Your task to perform on an android device: change keyboard looks Image 0: 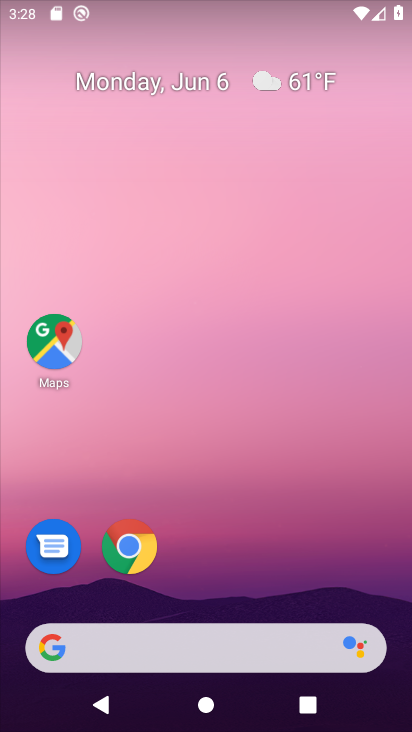
Step 0: drag from (250, 611) to (243, 98)
Your task to perform on an android device: change keyboard looks Image 1: 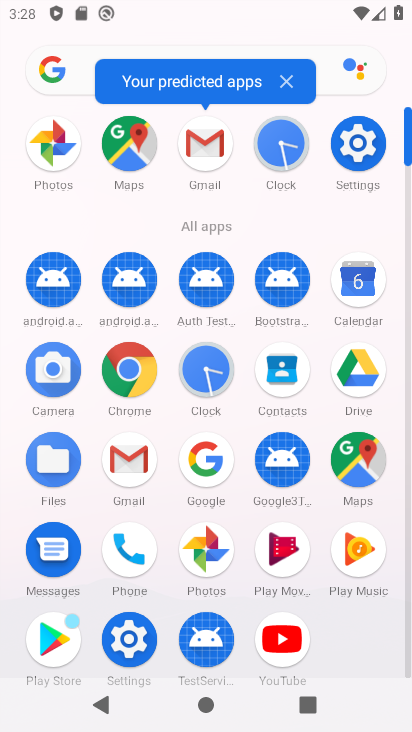
Step 1: click (364, 156)
Your task to perform on an android device: change keyboard looks Image 2: 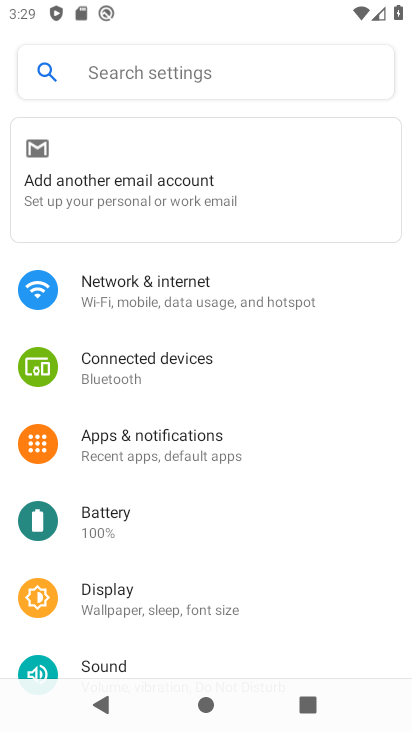
Step 2: drag from (166, 657) to (166, 233)
Your task to perform on an android device: change keyboard looks Image 3: 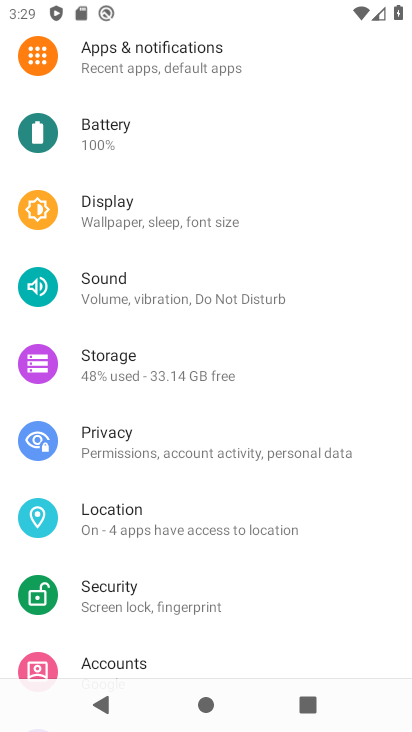
Step 3: drag from (182, 601) to (181, 167)
Your task to perform on an android device: change keyboard looks Image 4: 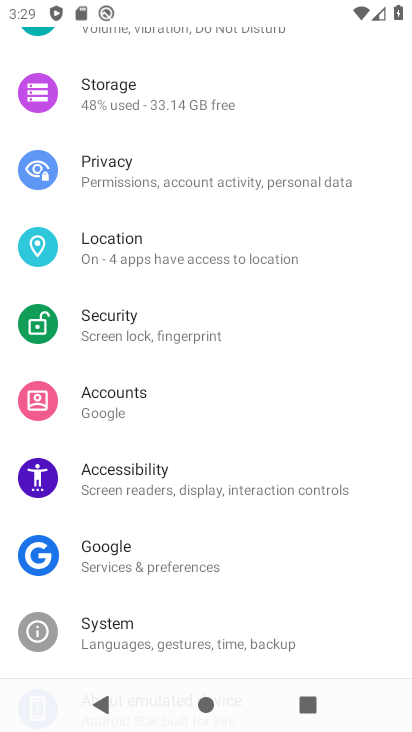
Step 4: drag from (174, 630) to (194, 247)
Your task to perform on an android device: change keyboard looks Image 5: 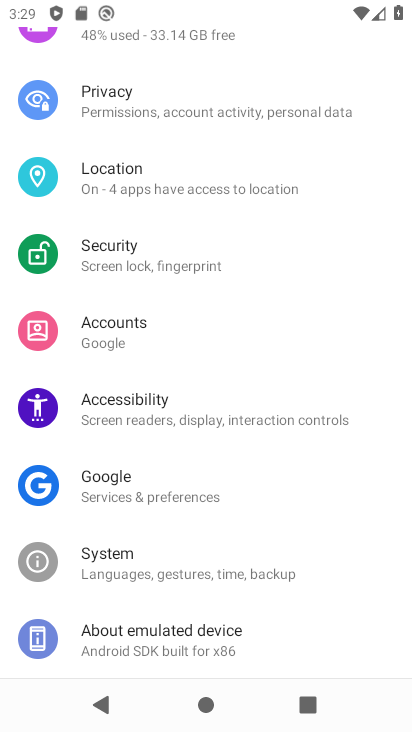
Step 5: click (128, 566)
Your task to perform on an android device: change keyboard looks Image 6: 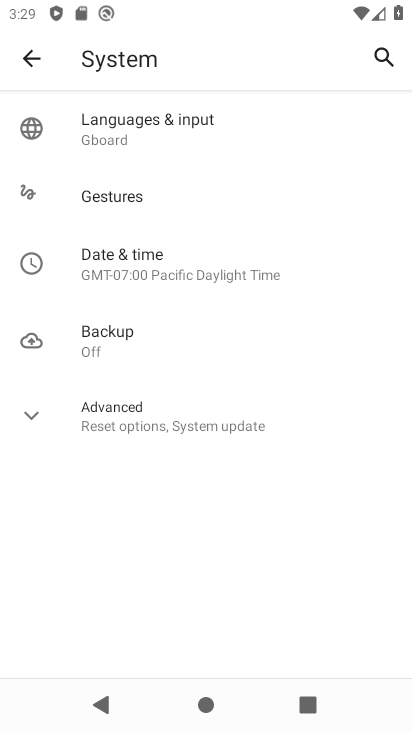
Step 6: click (114, 128)
Your task to perform on an android device: change keyboard looks Image 7: 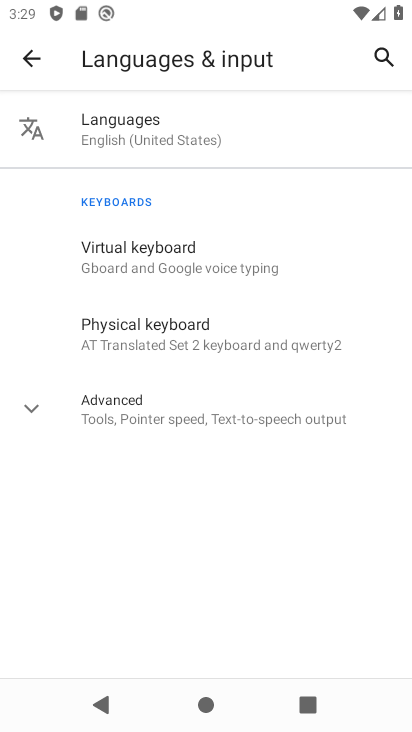
Step 7: click (154, 248)
Your task to perform on an android device: change keyboard looks Image 8: 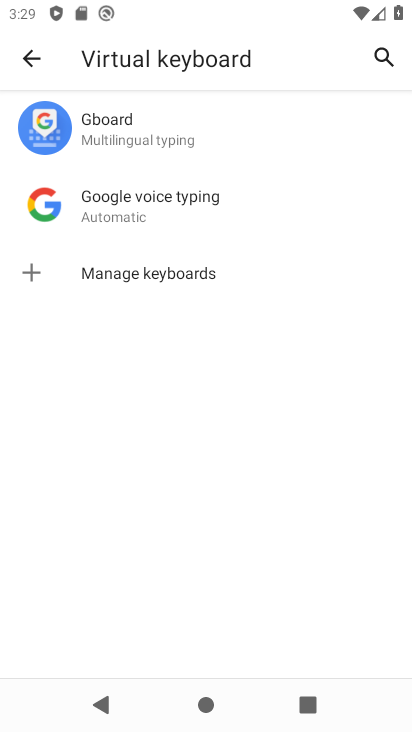
Step 8: click (106, 135)
Your task to perform on an android device: change keyboard looks Image 9: 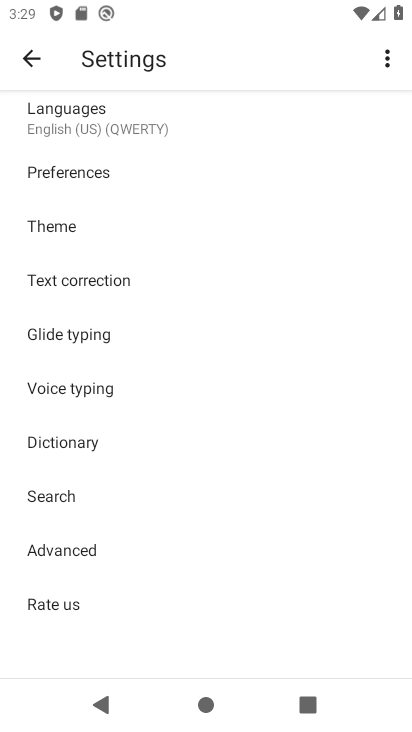
Step 9: click (52, 228)
Your task to perform on an android device: change keyboard looks Image 10: 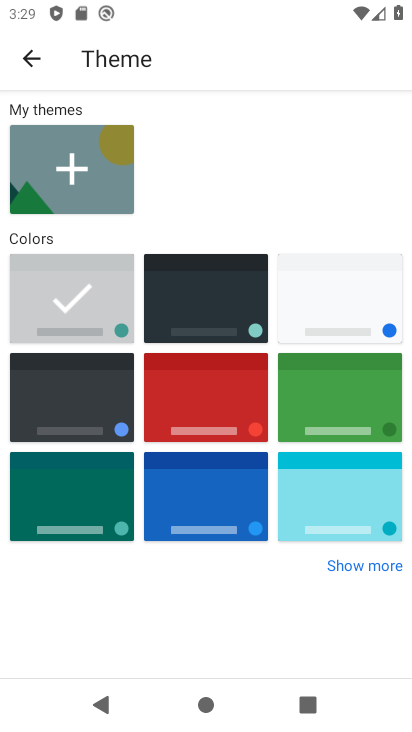
Step 10: click (209, 296)
Your task to perform on an android device: change keyboard looks Image 11: 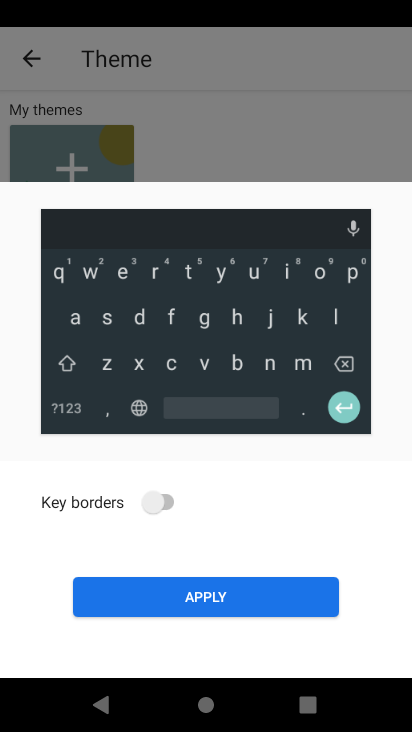
Step 11: click (170, 502)
Your task to perform on an android device: change keyboard looks Image 12: 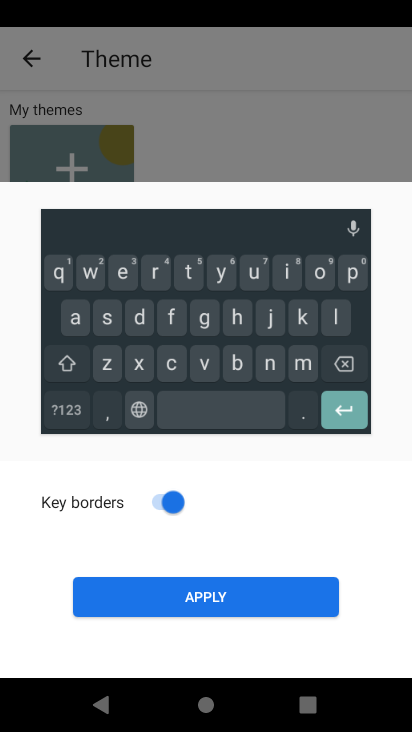
Step 12: click (229, 600)
Your task to perform on an android device: change keyboard looks Image 13: 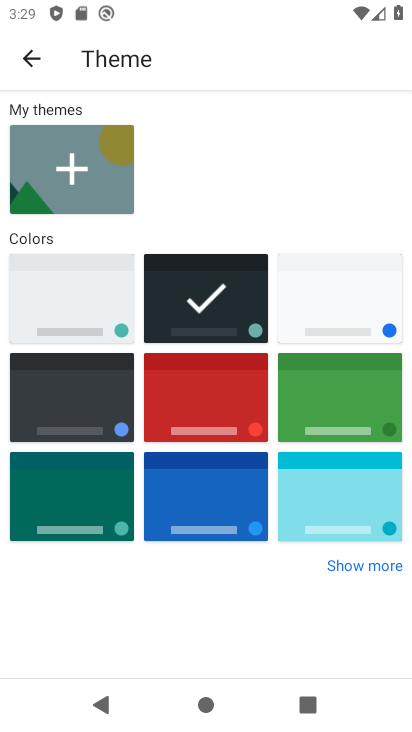
Step 13: task complete